Your task to perform on an android device: Go to CNN.com Image 0: 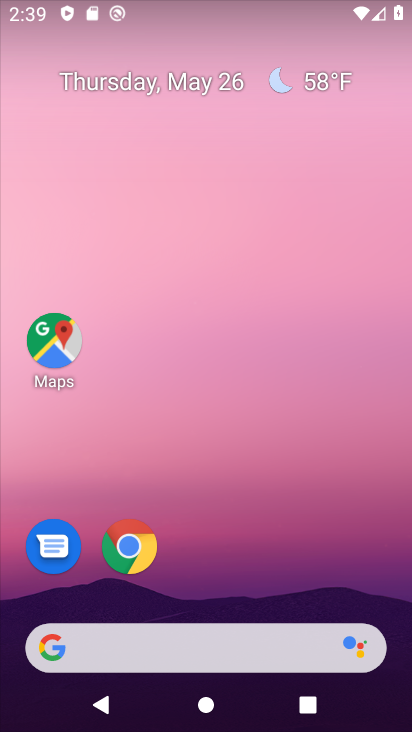
Step 0: click (127, 548)
Your task to perform on an android device: Go to CNN.com Image 1: 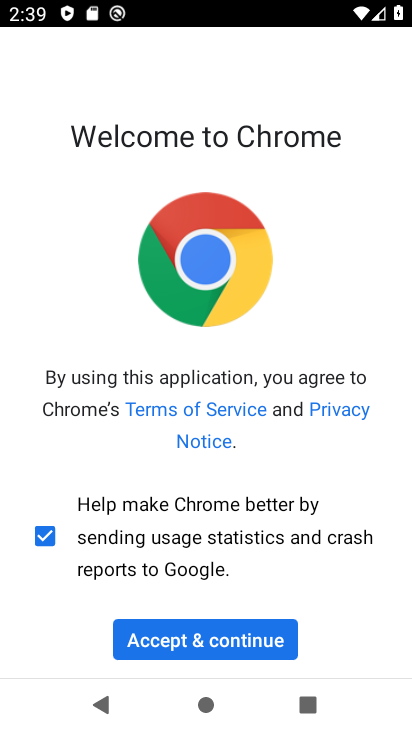
Step 1: click (210, 635)
Your task to perform on an android device: Go to CNN.com Image 2: 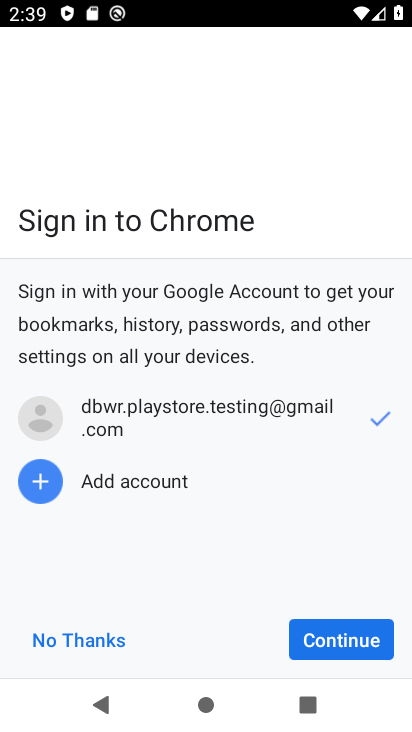
Step 2: click (347, 632)
Your task to perform on an android device: Go to CNN.com Image 3: 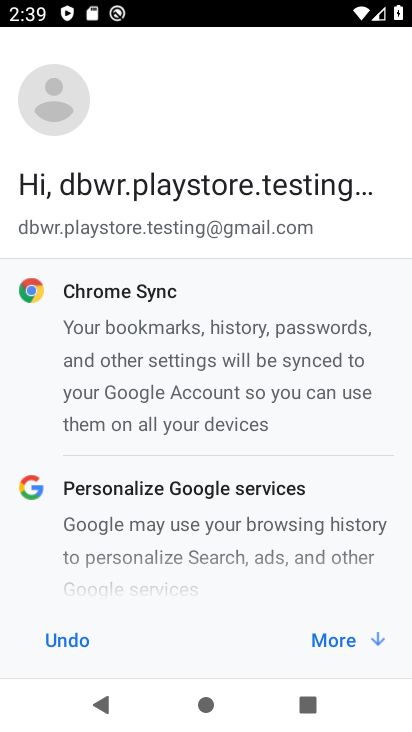
Step 3: click (344, 635)
Your task to perform on an android device: Go to CNN.com Image 4: 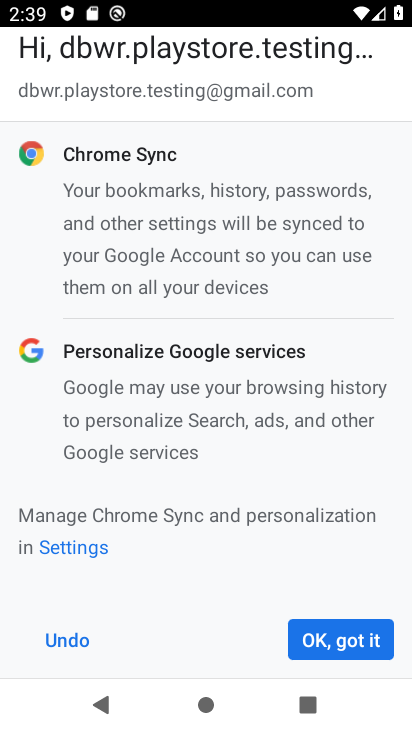
Step 4: click (359, 629)
Your task to perform on an android device: Go to CNN.com Image 5: 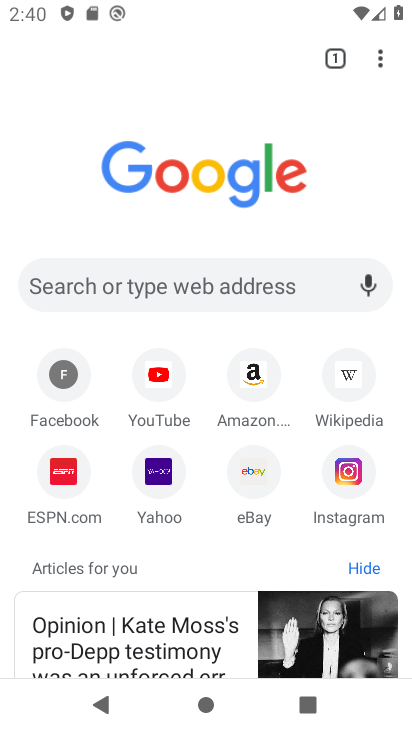
Step 5: click (173, 276)
Your task to perform on an android device: Go to CNN.com Image 6: 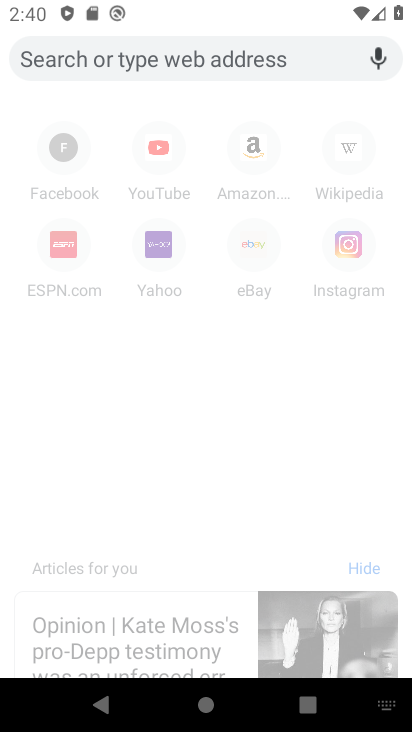
Step 6: type "cnn.com"
Your task to perform on an android device: Go to CNN.com Image 7: 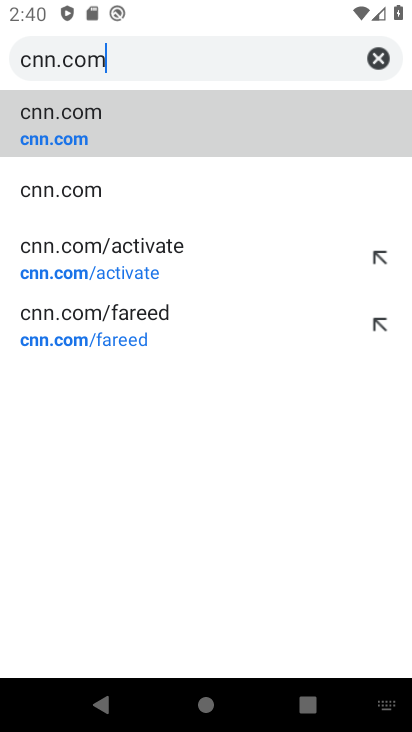
Step 7: click (107, 129)
Your task to perform on an android device: Go to CNN.com Image 8: 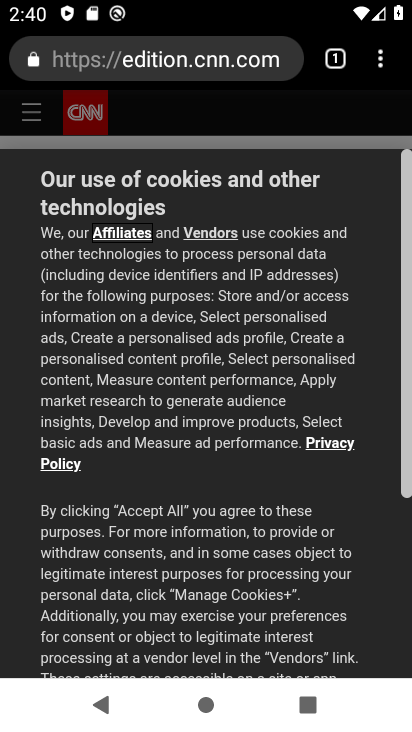
Step 8: drag from (215, 604) to (220, 252)
Your task to perform on an android device: Go to CNN.com Image 9: 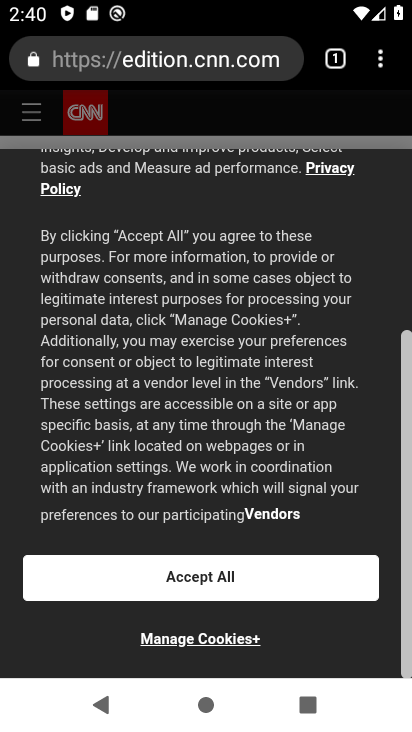
Step 9: click (201, 577)
Your task to perform on an android device: Go to CNN.com Image 10: 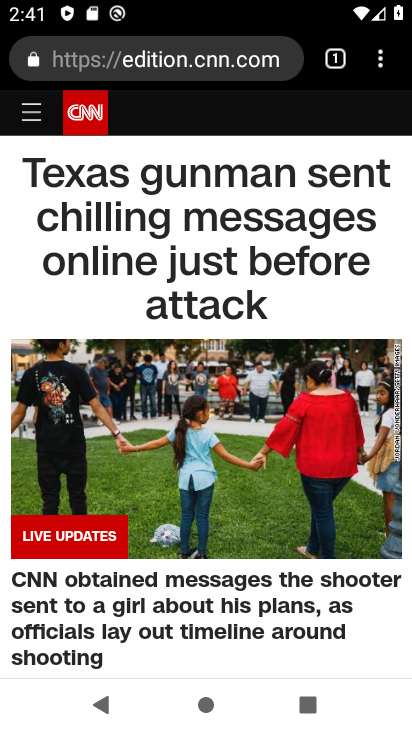
Step 10: task complete